Your task to perform on an android device: Go to Yahoo.com Image 0: 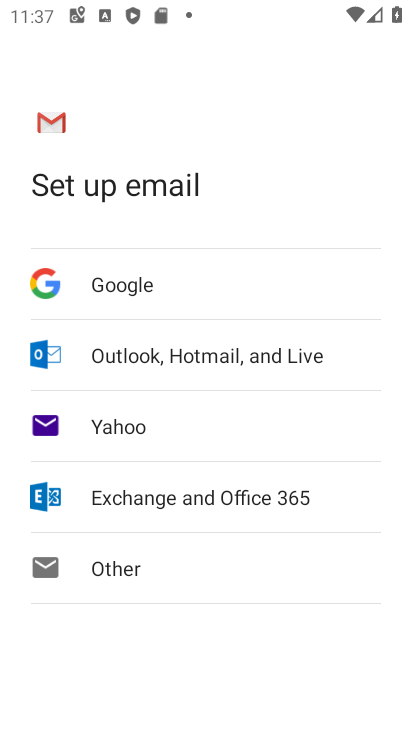
Step 0: press home button
Your task to perform on an android device: Go to Yahoo.com Image 1: 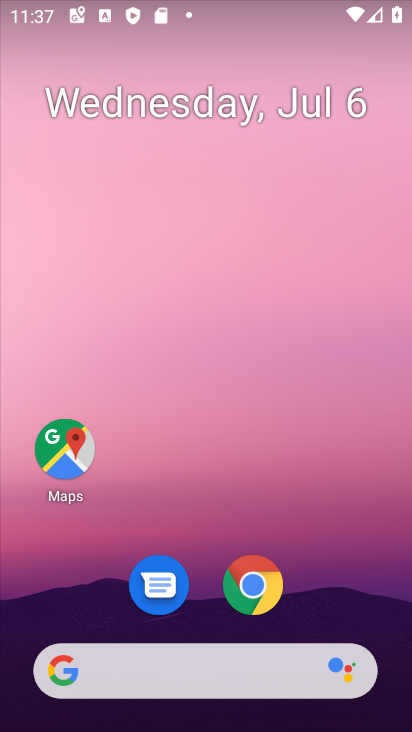
Step 1: click (238, 670)
Your task to perform on an android device: Go to Yahoo.com Image 2: 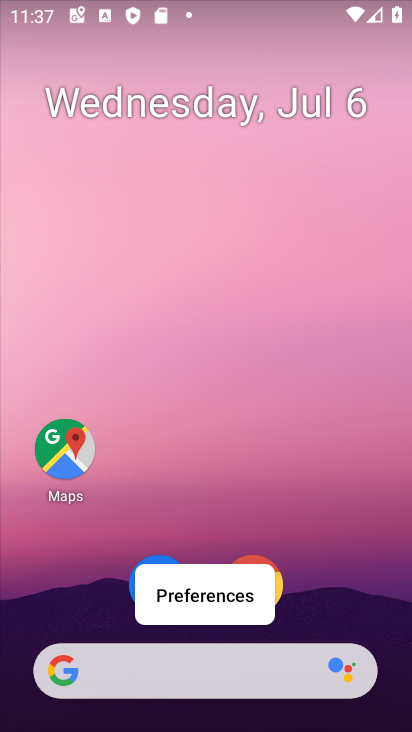
Step 2: click (244, 670)
Your task to perform on an android device: Go to Yahoo.com Image 3: 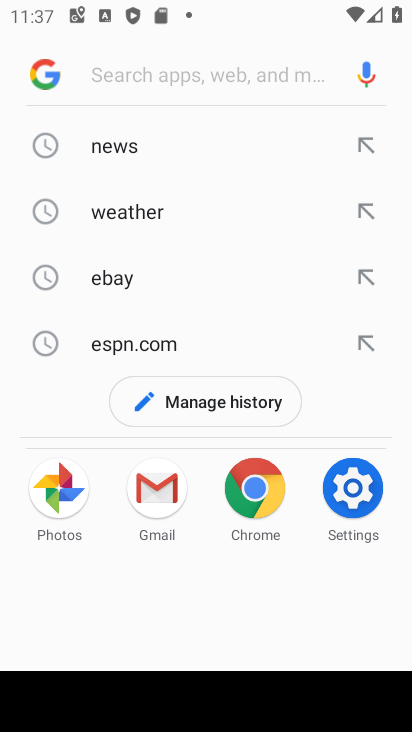
Step 3: type "yahoo.com"
Your task to perform on an android device: Go to Yahoo.com Image 4: 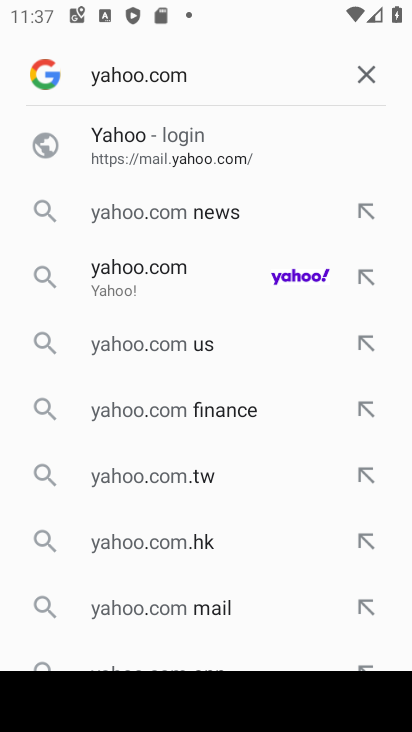
Step 4: click (180, 276)
Your task to perform on an android device: Go to Yahoo.com Image 5: 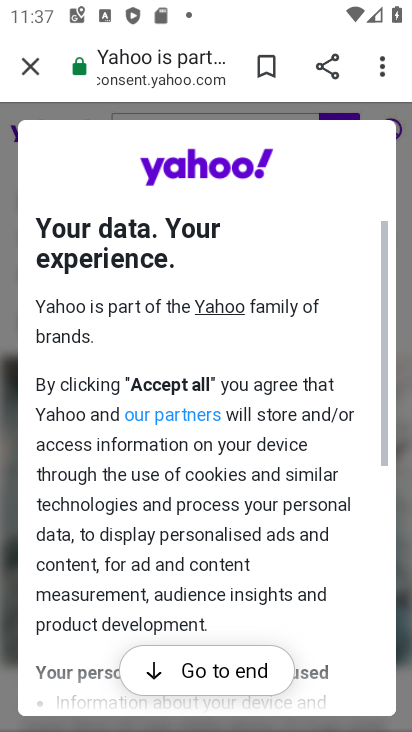
Step 5: click (229, 671)
Your task to perform on an android device: Go to Yahoo.com Image 6: 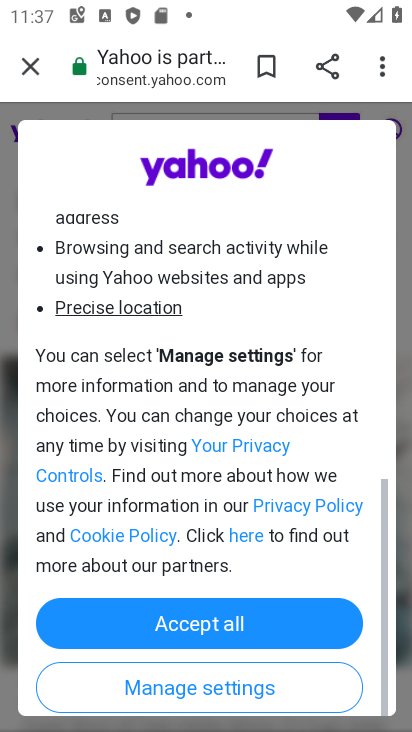
Step 6: click (253, 630)
Your task to perform on an android device: Go to Yahoo.com Image 7: 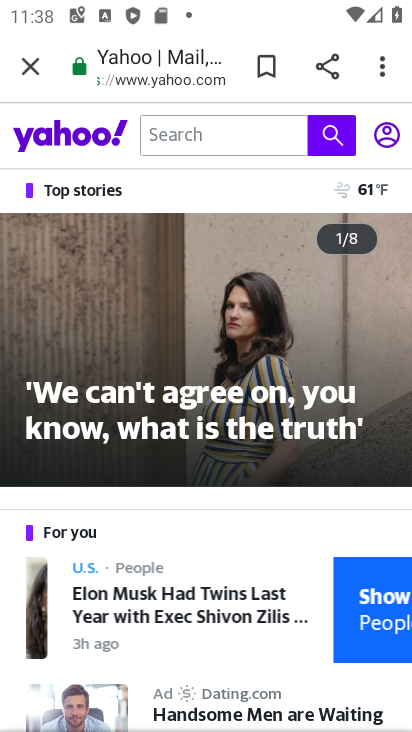
Step 7: task complete